Your task to perform on an android device: Open calendar and show me the third week of next month Image 0: 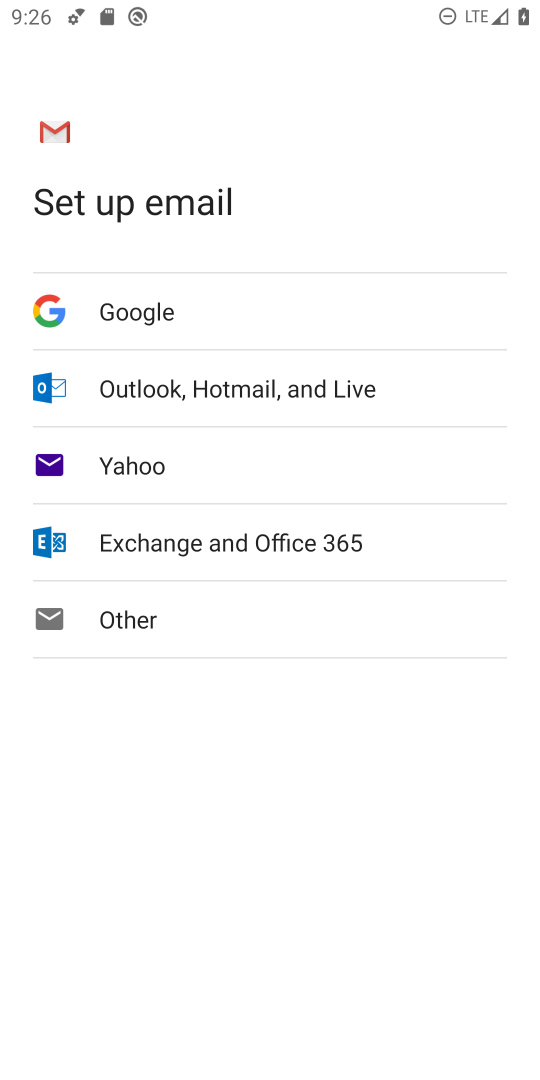
Step 0: press home button
Your task to perform on an android device: Open calendar and show me the third week of next month Image 1: 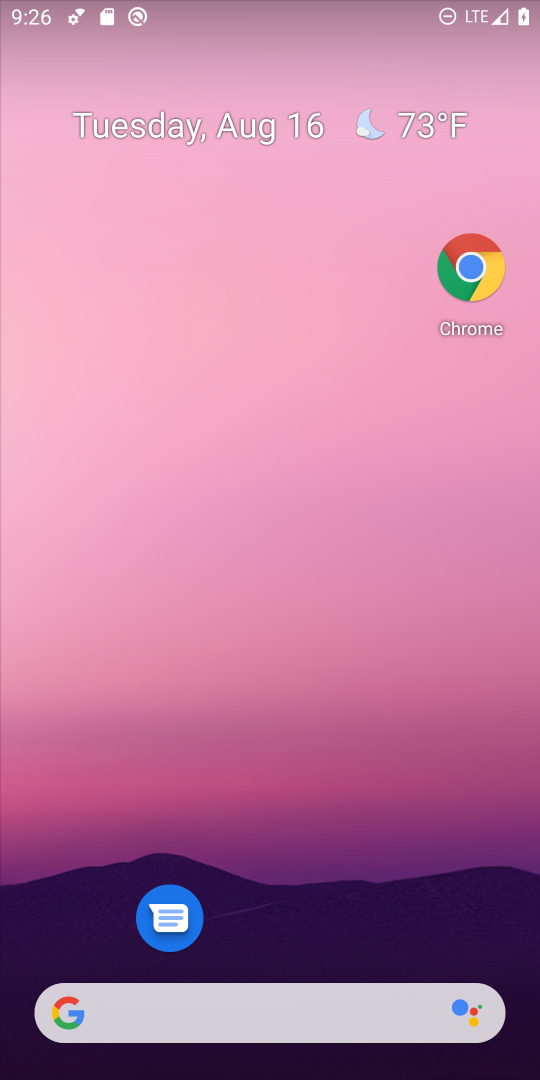
Step 1: drag from (311, 1018) to (413, 165)
Your task to perform on an android device: Open calendar and show me the third week of next month Image 2: 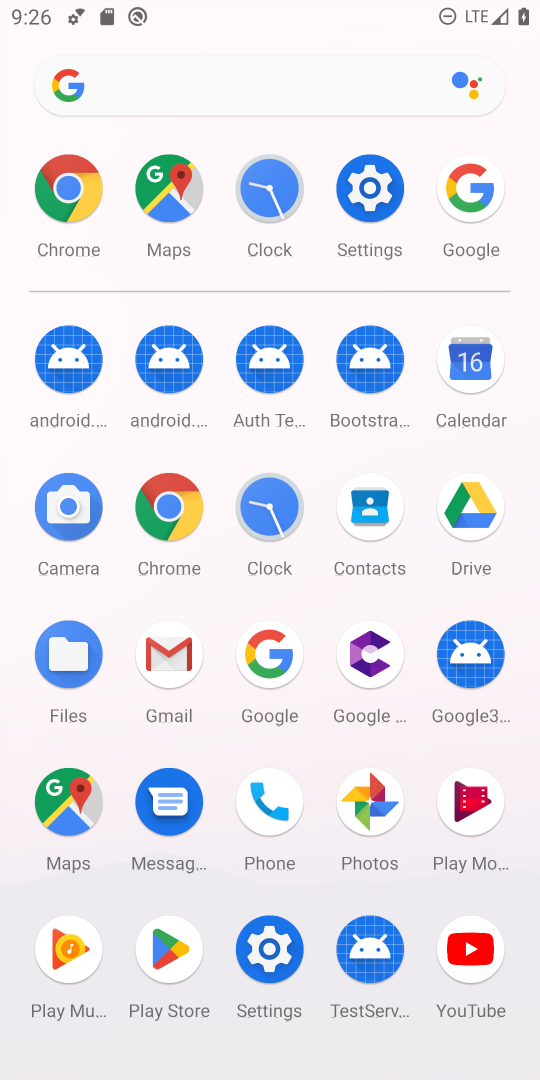
Step 2: click (497, 392)
Your task to perform on an android device: Open calendar and show me the third week of next month Image 3: 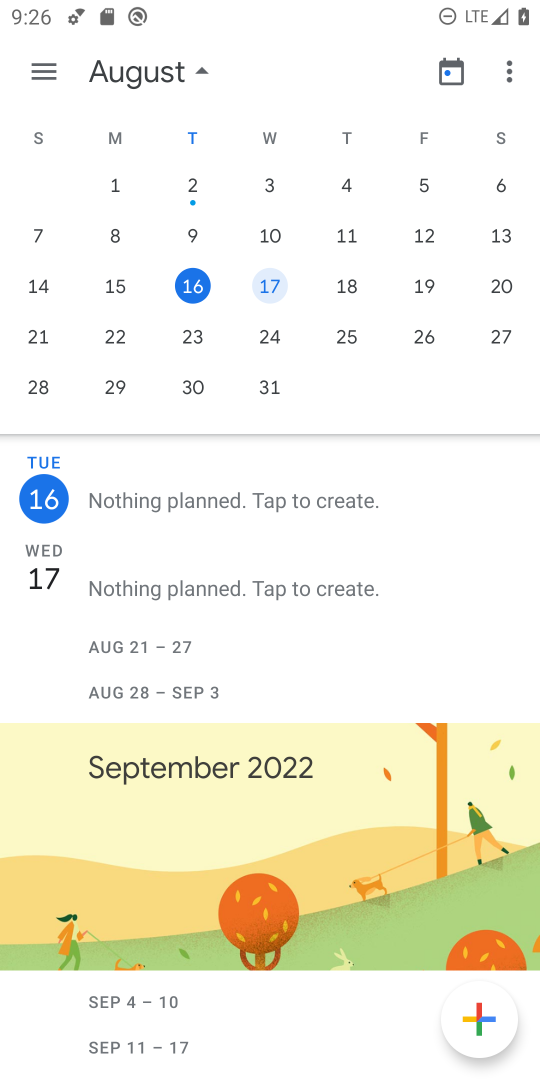
Step 3: drag from (451, 244) to (0, 223)
Your task to perform on an android device: Open calendar and show me the third week of next month Image 4: 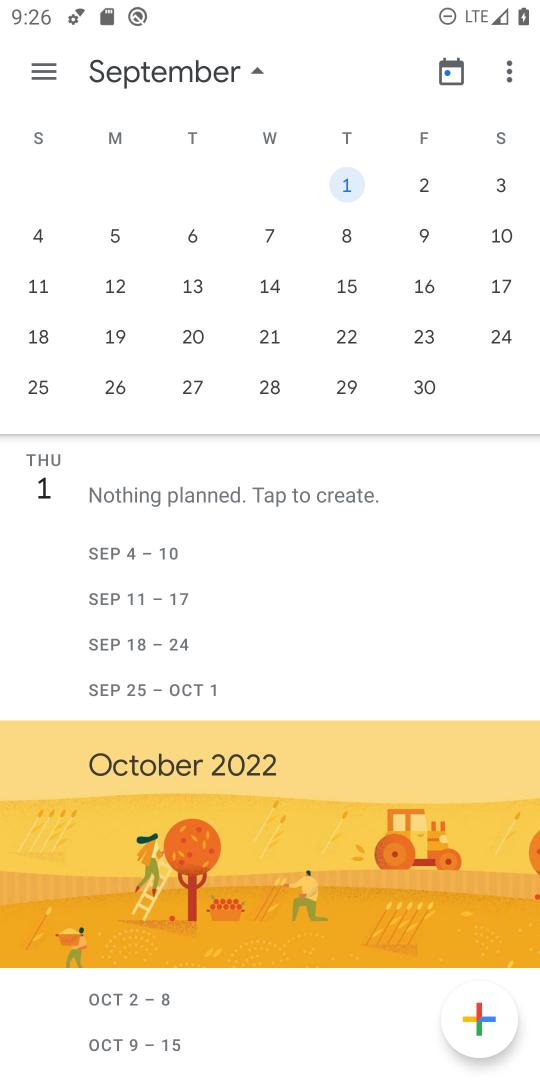
Step 4: click (355, 296)
Your task to perform on an android device: Open calendar and show me the third week of next month Image 5: 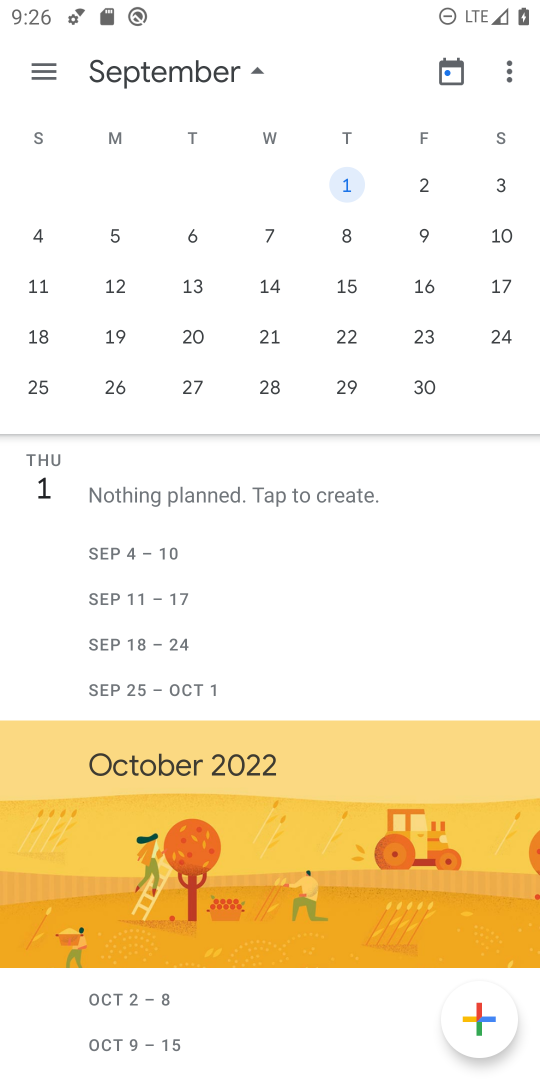
Step 5: click (354, 282)
Your task to perform on an android device: Open calendar and show me the third week of next month Image 6: 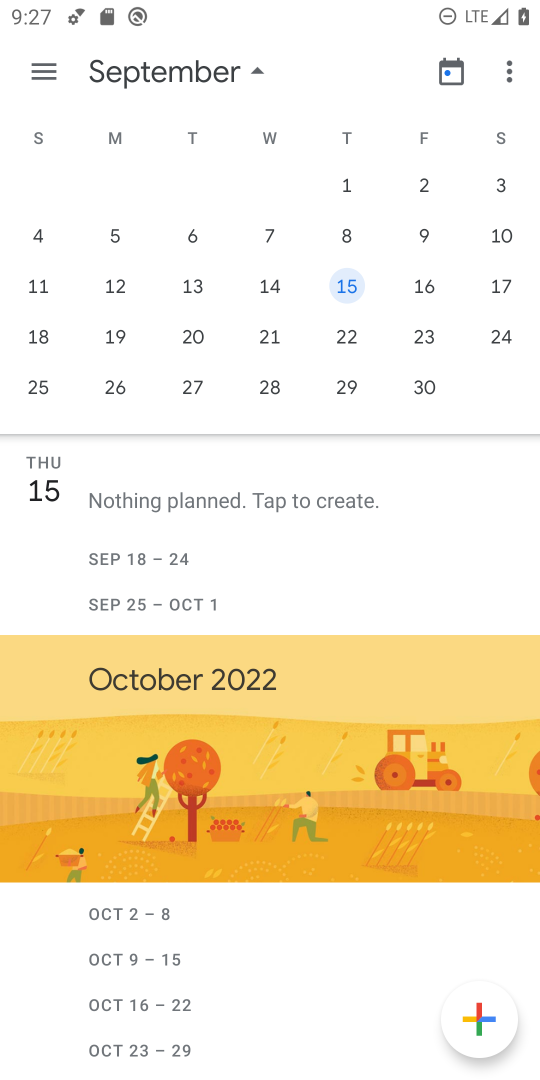
Step 6: task complete